Your task to perform on an android device: Open Amazon Image 0: 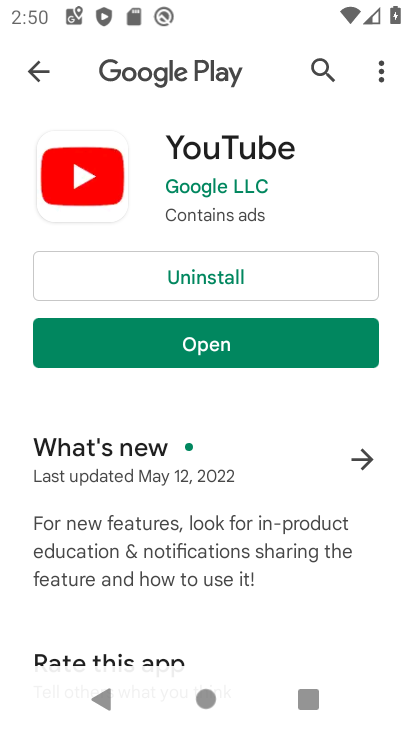
Step 0: press home button
Your task to perform on an android device: Open Amazon Image 1: 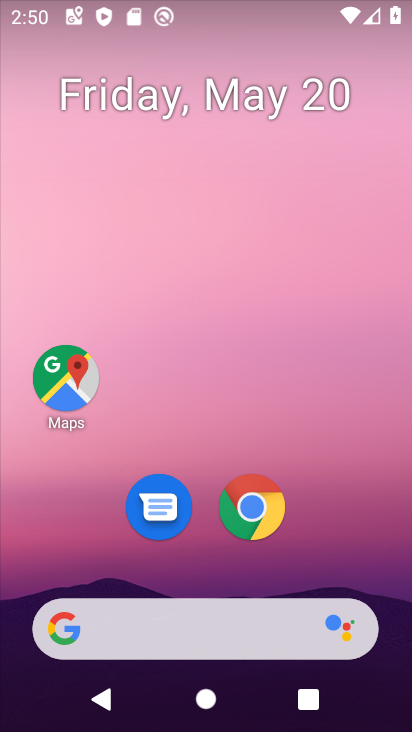
Step 1: click (255, 510)
Your task to perform on an android device: Open Amazon Image 2: 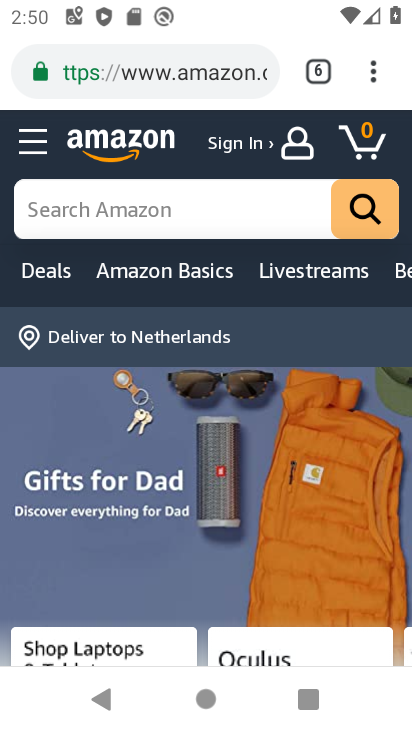
Step 2: task complete